Your task to perform on an android device: create a new album in the google photos Image 0: 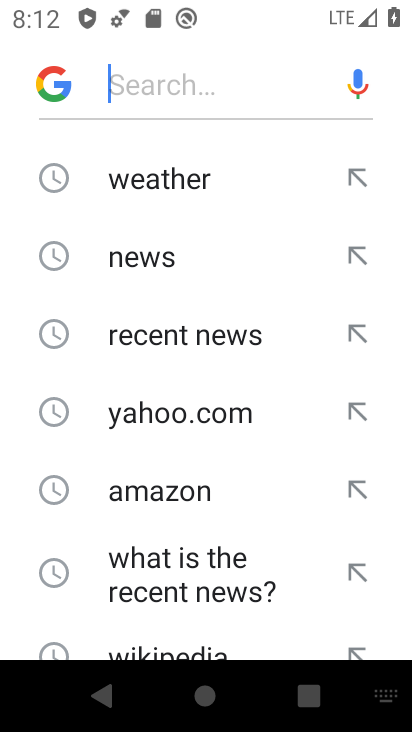
Step 0: press home button
Your task to perform on an android device: create a new album in the google photos Image 1: 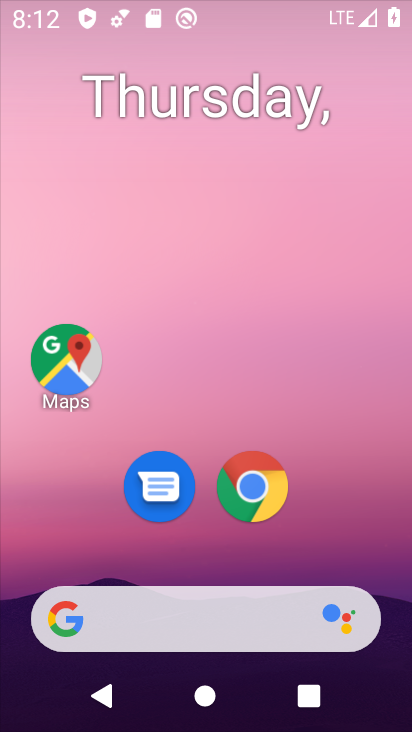
Step 1: drag from (229, 535) to (245, 109)
Your task to perform on an android device: create a new album in the google photos Image 2: 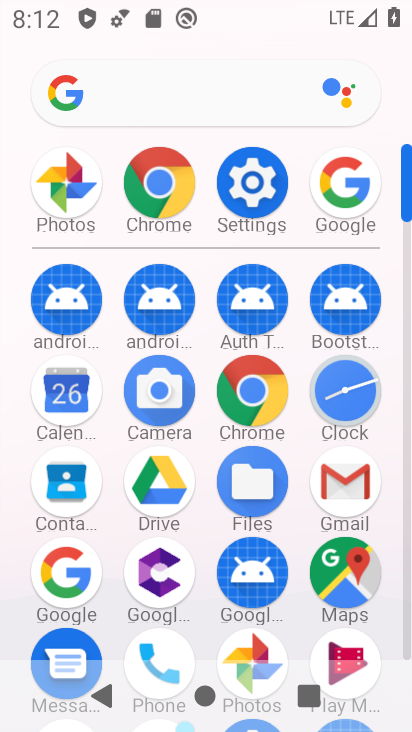
Step 2: drag from (261, 549) to (257, 233)
Your task to perform on an android device: create a new album in the google photos Image 3: 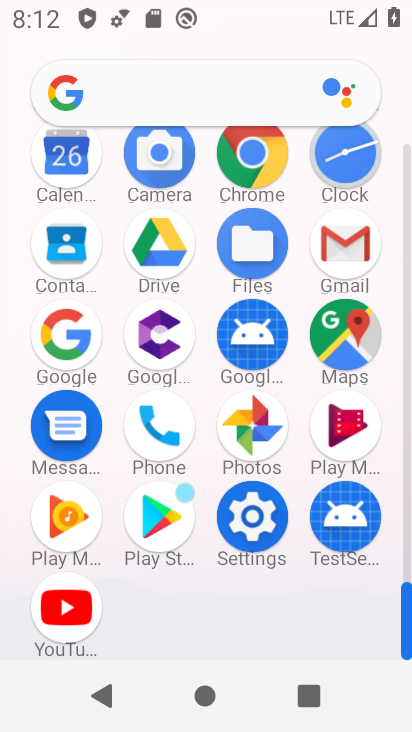
Step 3: click (269, 438)
Your task to perform on an android device: create a new album in the google photos Image 4: 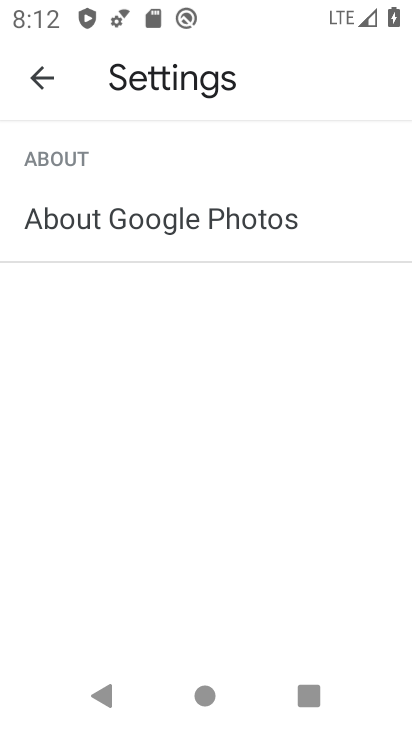
Step 4: click (41, 86)
Your task to perform on an android device: create a new album in the google photos Image 5: 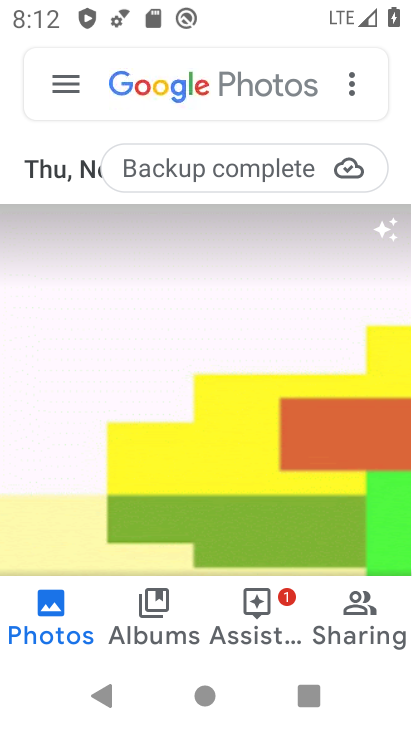
Step 5: click (71, 89)
Your task to perform on an android device: create a new album in the google photos Image 6: 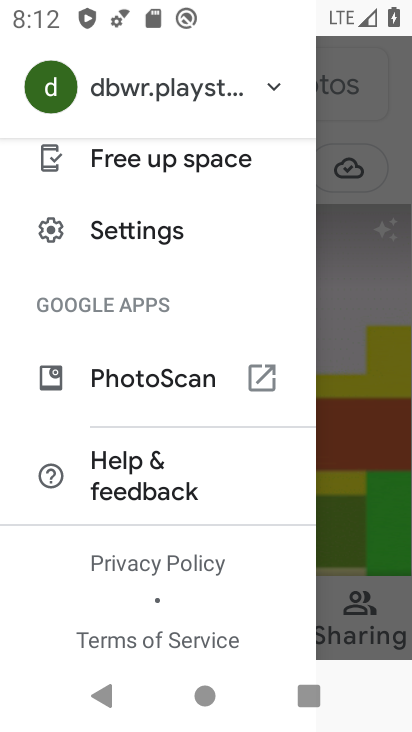
Step 6: click (394, 348)
Your task to perform on an android device: create a new album in the google photos Image 7: 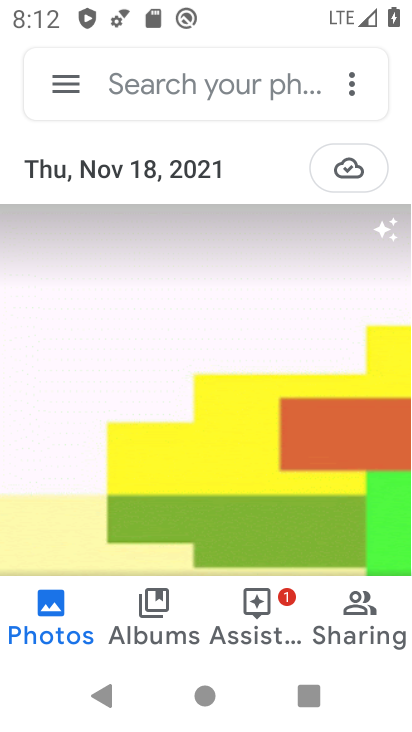
Step 7: click (155, 632)
Your task to perform on an android device: create a new album in the google photos Image 8: 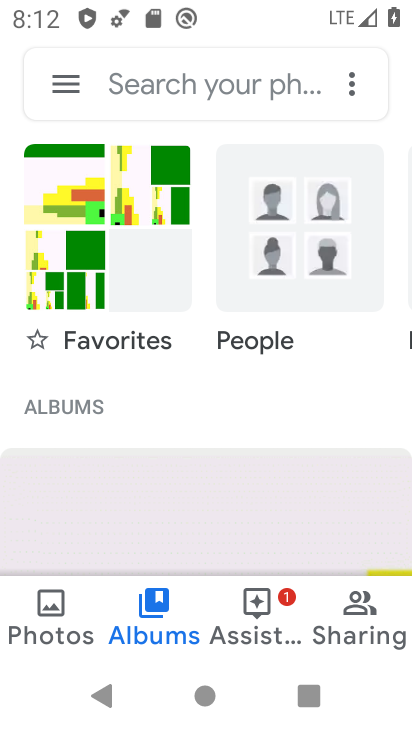
Step 8: task complete